Your task to perform on an android device: turn on the 24-hour format for clock Image 0: 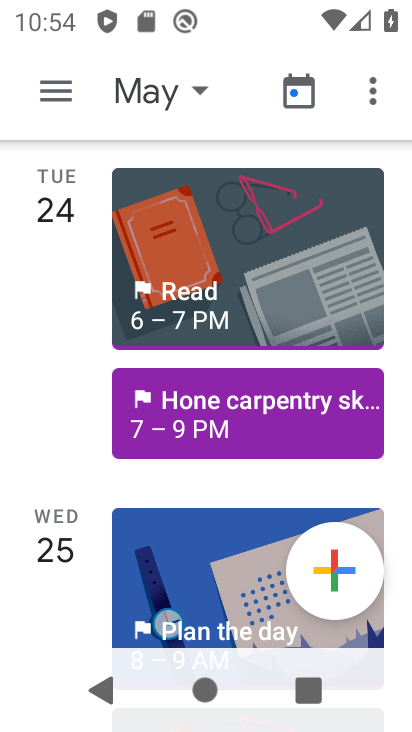
Step 0: press home button
Your task to perform on an android device: turn on the 24-hour format for clock Image 1: 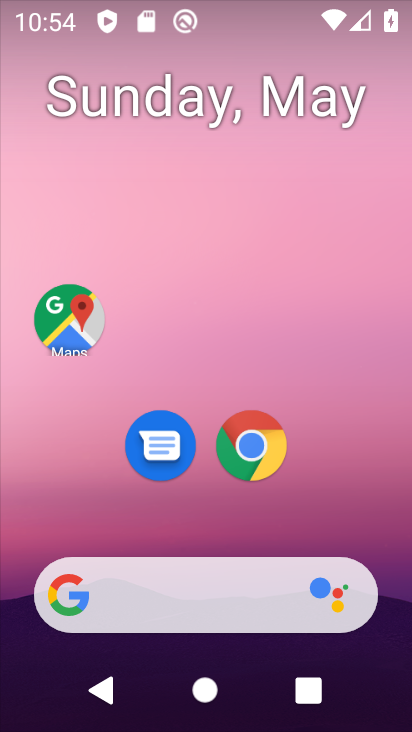
Step 1: drag from (309, 505) to (320, 81)
Your task to perform on an android device: turn on the 24-hour format for clock Image 2: 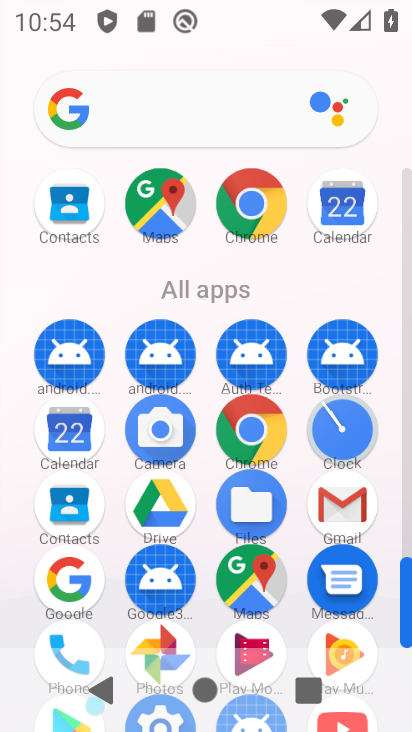
Step 2: click (346, 432)
Your task to perform on an android device: turn on the 24-hour format for clock Image 3: 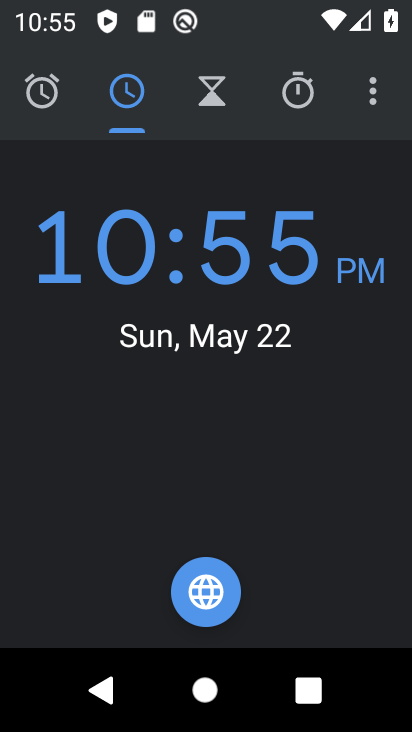
Step 3: click (377, 90)
Your task to perform on an android device: turn on the 24-hour format for clock Image 4: 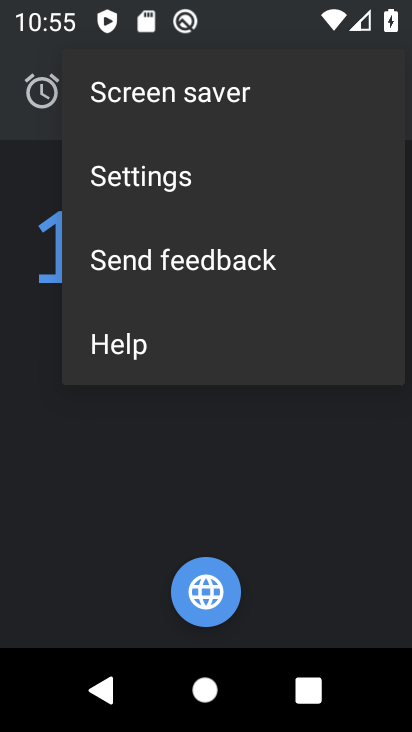
Step 4: click (173, 184)
Your task to perform on an android device: turn on the 24-hour format for clock Image 5: 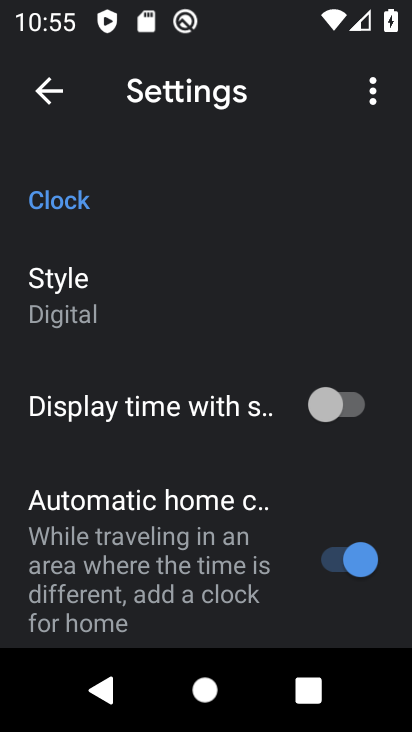
Step 5: drag from (296, 622) to (308, 211)
Your task to perform on an android device: turn on the 24-hour format for clock Image 6: 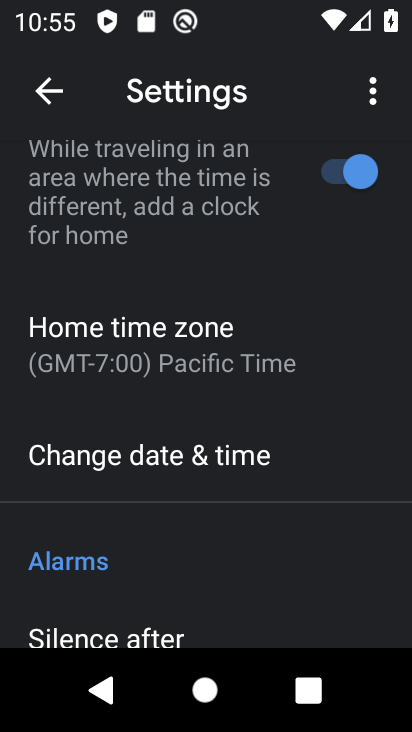
Step 6: click (195, 460)
Your task to perform on an android device: turn on the 24-hour format for clock Image 7: 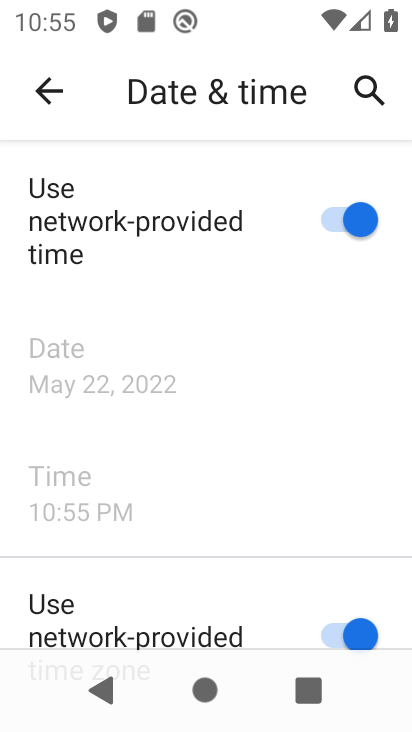
Step 7: drag from (294, 563) to (384, 51)
Your task to perform on an android device: turn on the 24-hour format for clock Image 8: 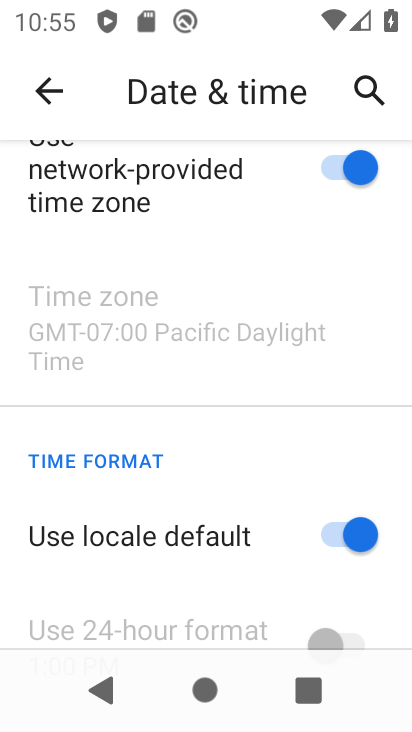
Step 8: drag from (272, 574) to (314, 346)
Your task to perform on an android device: turn on the 24-hour format for clock Image 9: 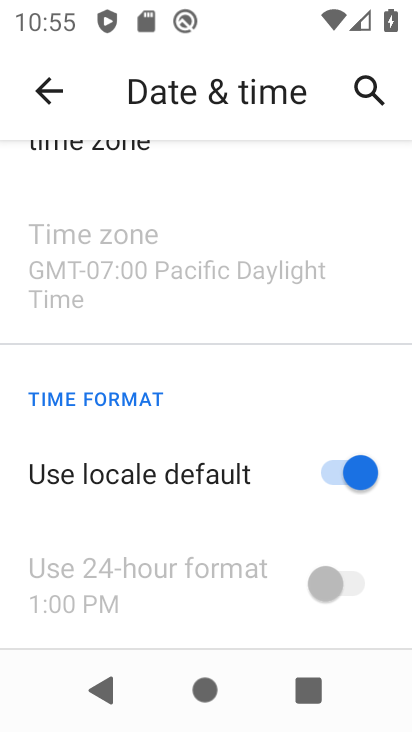
Step 9: click (346, 463)
Your task to perform on an android device: turn on the 24-hour format for clock Image 10: 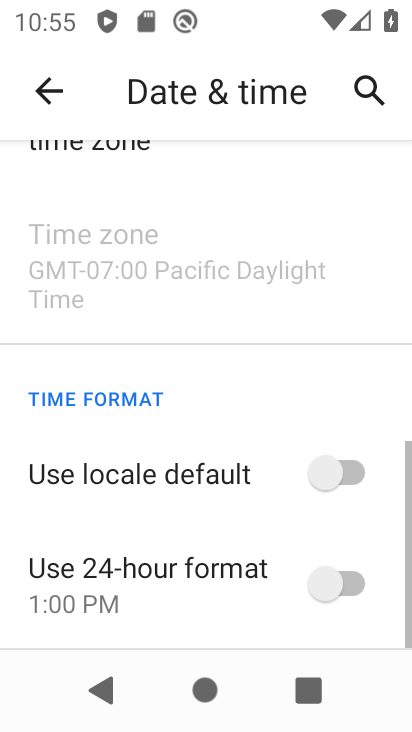
Step 10: click (342, 578)
Your task to perform on an android device: turn on the 24-hour format for clock Image 11: 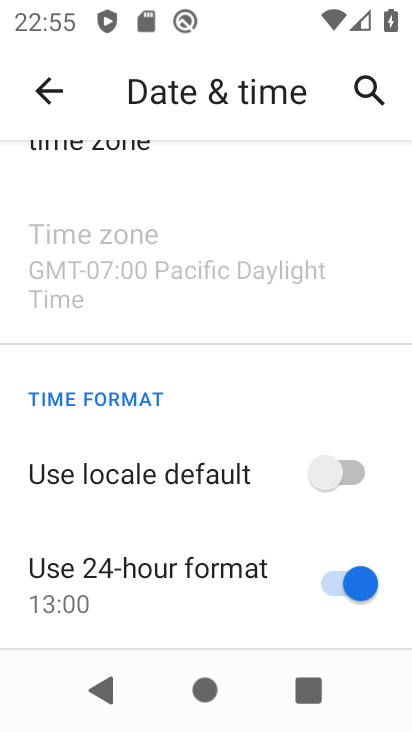
Step 11: task complete